Your task to perform on an android device: What's the weather going to be this weekend? Image 0: 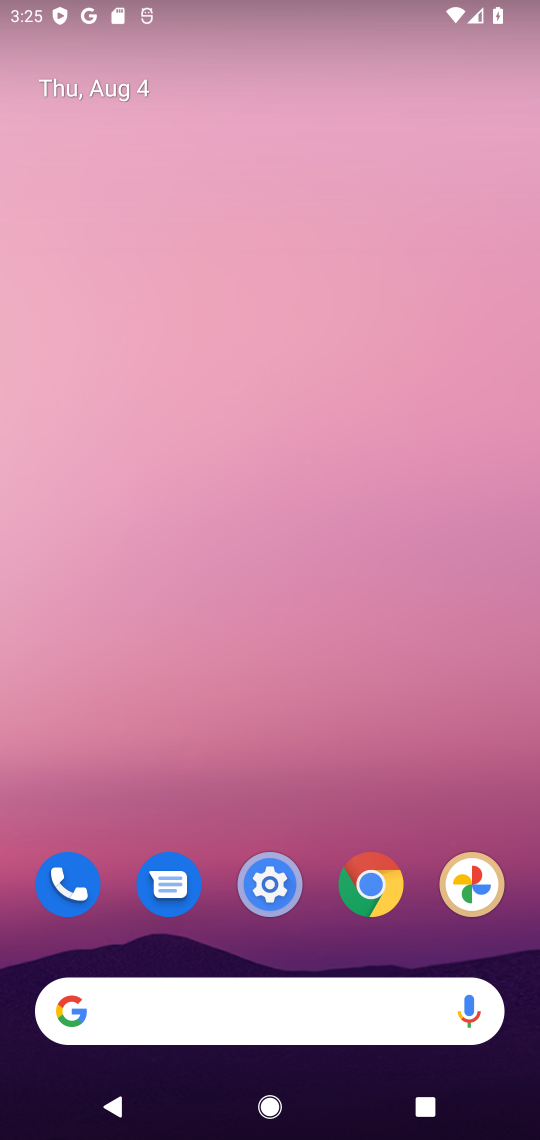
Step 0: drag from (215, 929) to (294, 240)
Your task to perform on an android device: What's the weather going to be this weekend? Image 1: 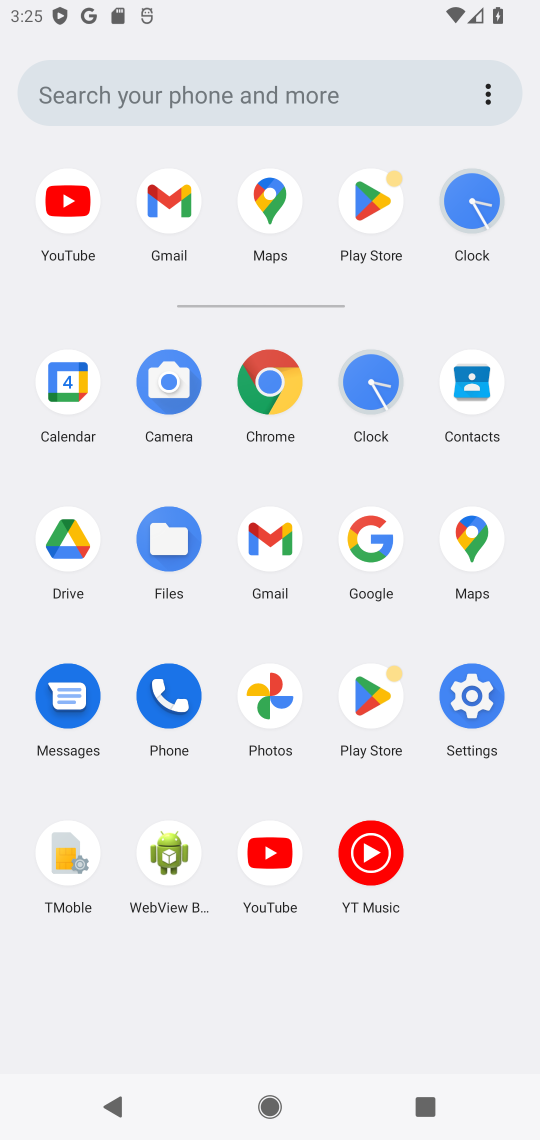
Step 1: click (145, 97)
Your task to perform on an android device: What's the weather going to be this weekend? Image 2: 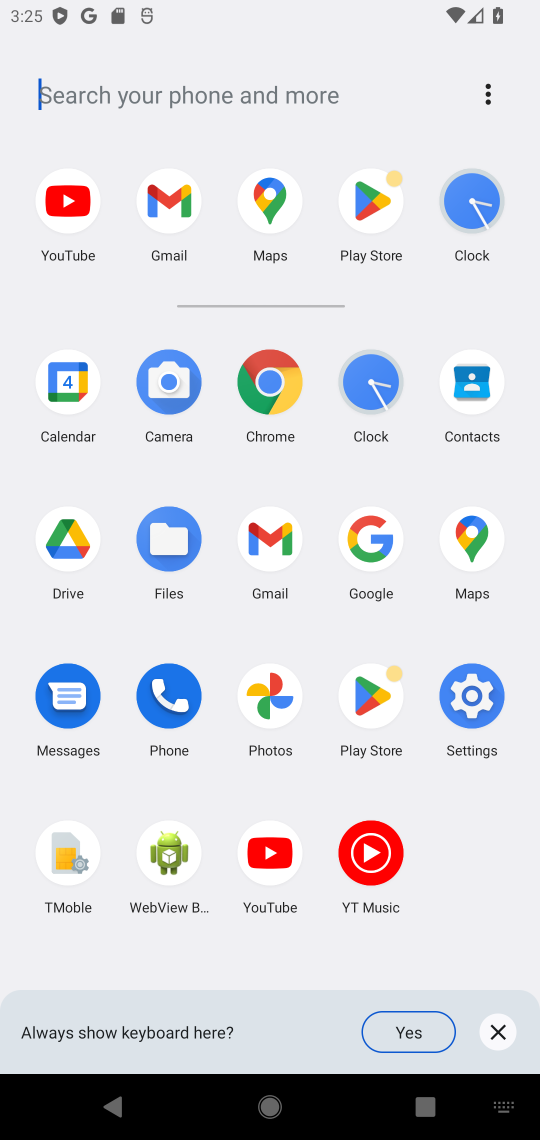
Step 2: type "What's the weather going to be this weekend?"
Your task to perform on an android device: What's the weather going to be this weekend? Image 3: 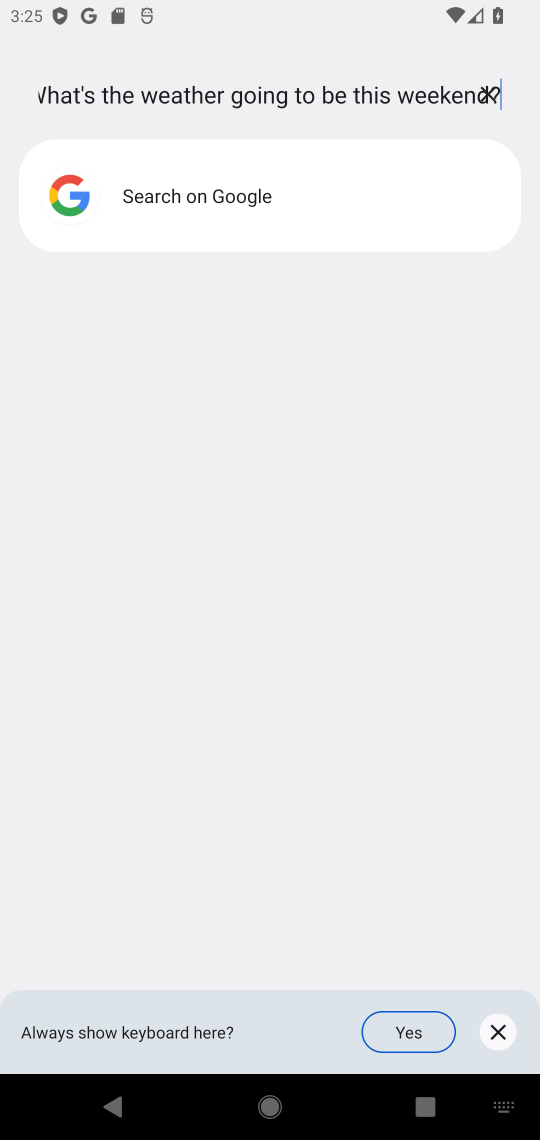
Step 3: type ""
Your task to perform on an android device: What's the weather going to be this weekend? Image 4: 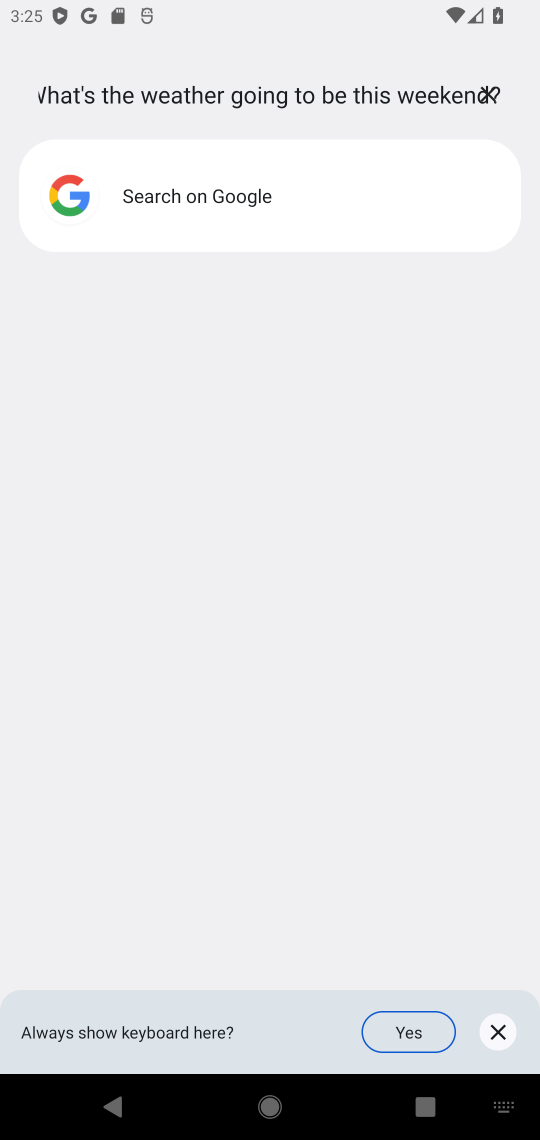
Step 4: click (162, 197)
Your task to perform on an android device: What's the weather going to be this weekend? Image 5: 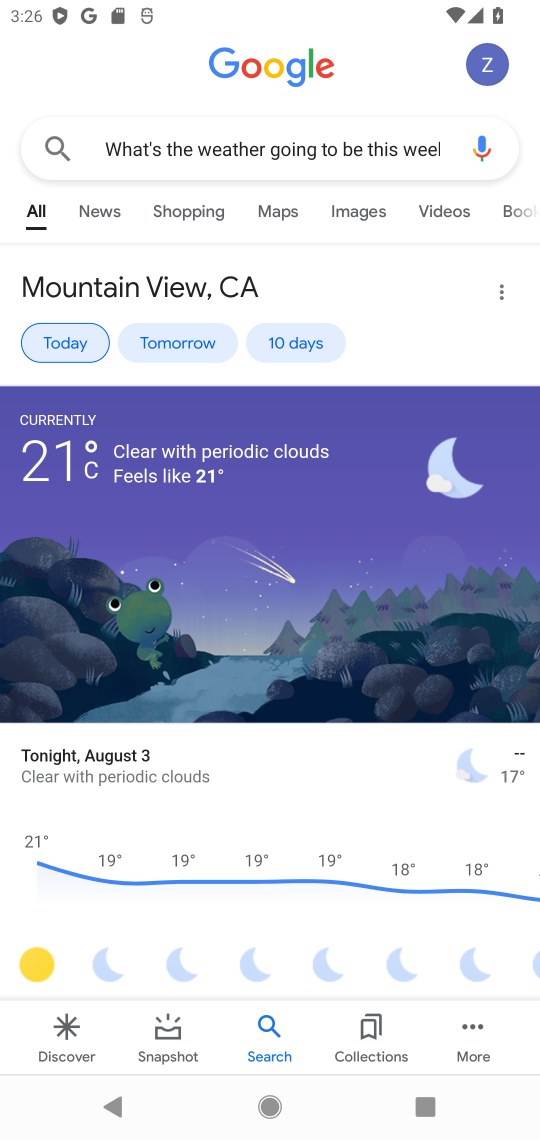
Step 5: task complete